Your task to perform on an android device: When is my next appointment? Image 0: 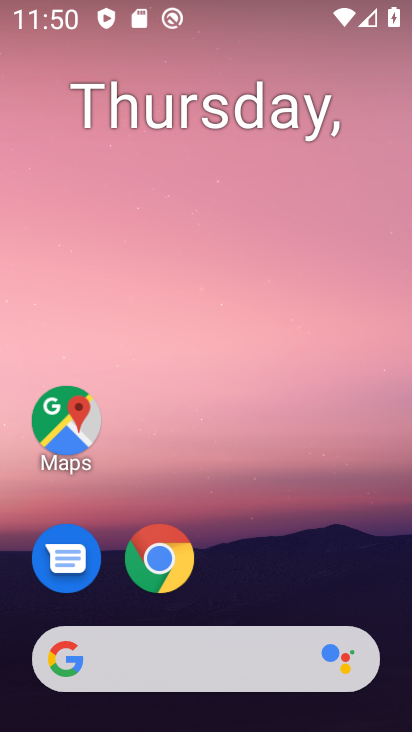
Step 0: press home button
Your task to perform on an android device: When is my next appointment? Image 1: 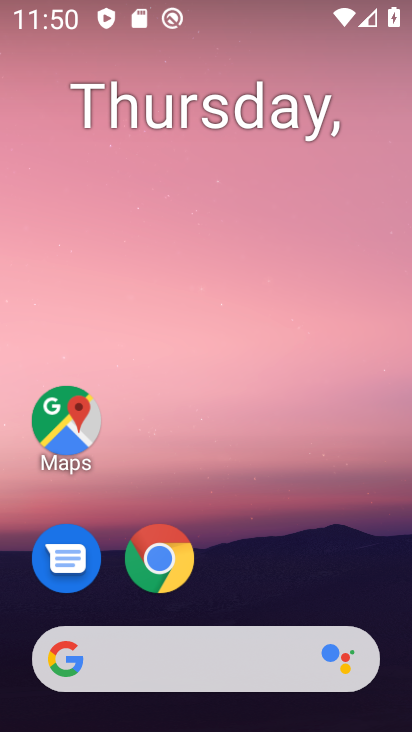
Step 1: drag from (345, 531) to (336, 97)
Your task to perform on an android device: When is my next appointment? Image 2: 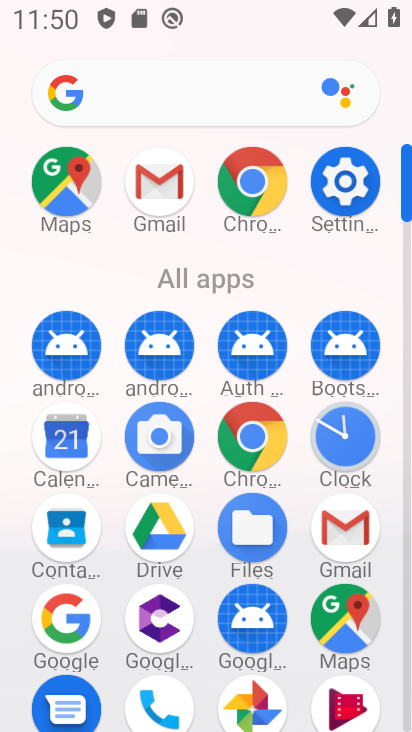
Step 2: click (79, 436)
Your task to perform on an android device: When is my next appointment? Image 3: 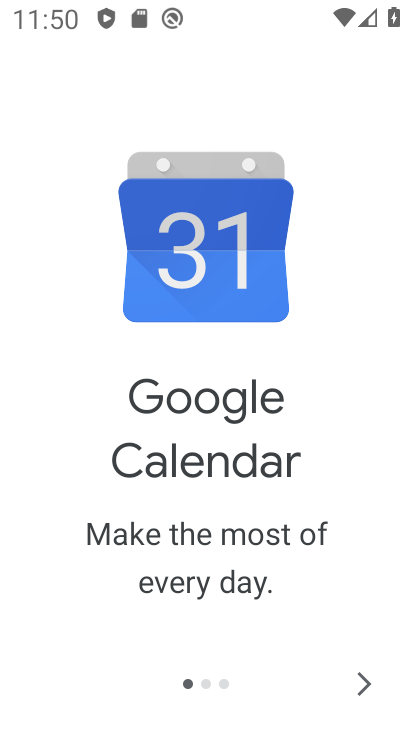
Step 3: click (356, 679)
Your task to perform on an android device: When is my next appointment? Image 4: 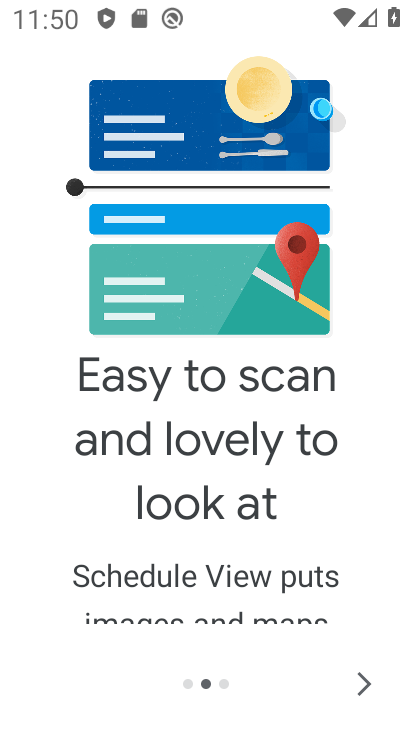
Step 4: click (356, 679)
Your task to perform on an android device: When is my next appointment? Image 5: 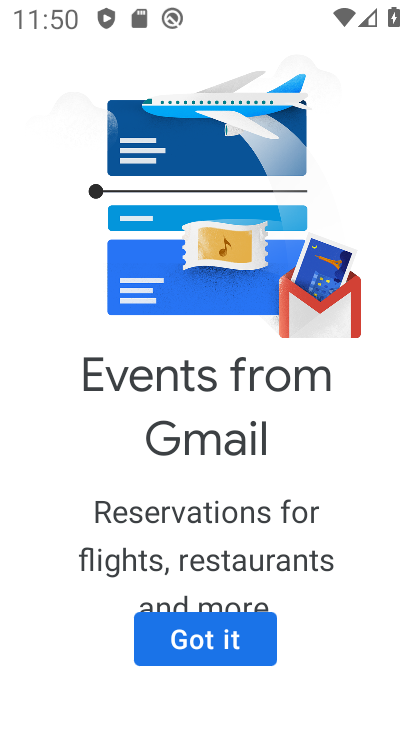
Step 5: click (250, 640)
Your task to perform on an android device: When is my next appointment? Image 6: 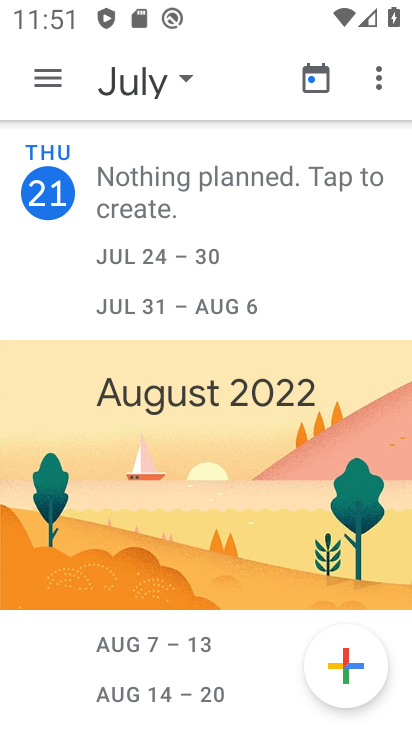
Step 6: task complete